Your task to perform on an android device: Go to Android settings Image 0: 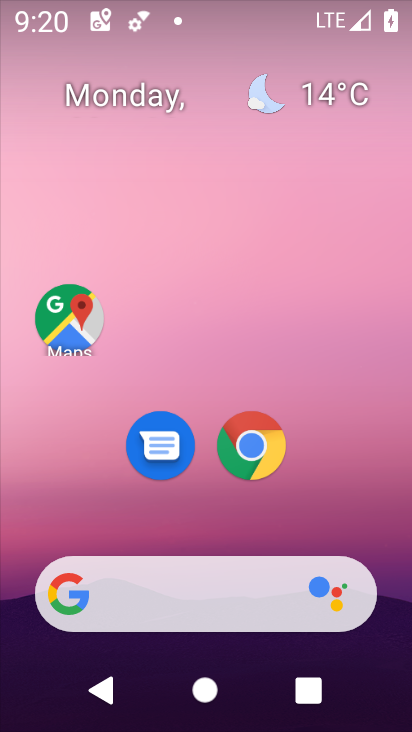
Step 0: drag from (210, 519) to (191, 2)
Your task to perform on an android device: Go to Android settings Image 1: 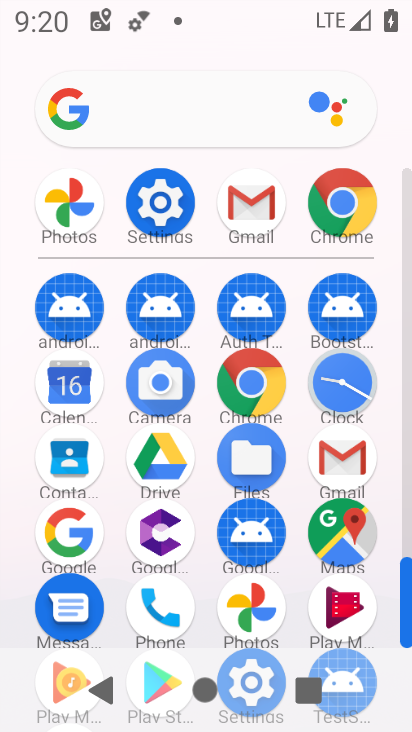
Step 1: click (158, 193)
Your task to perform on an android device: Go to Android settings Image 2: 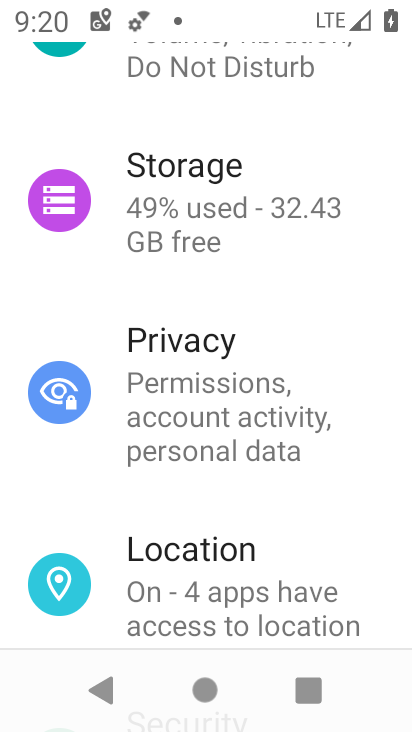
Step 2: drag from (111, 610) to (120, 113)
Your task to perform on an android device: Go to Android settings Image 3: 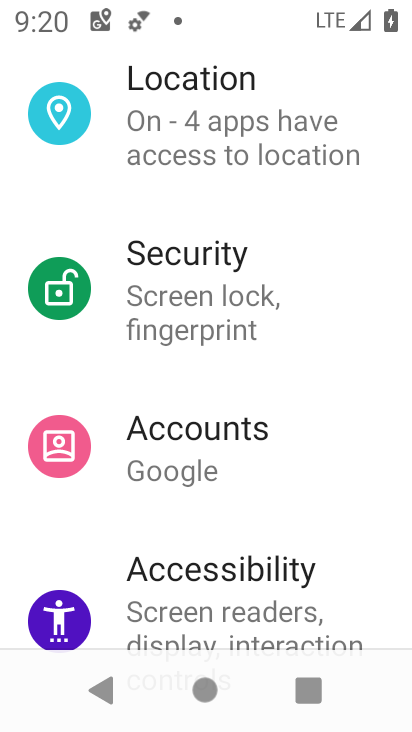
Step 3: drag from (118, 597) to (127, 87)
Your task to perform on an android device: Go to Android settings Image 4: 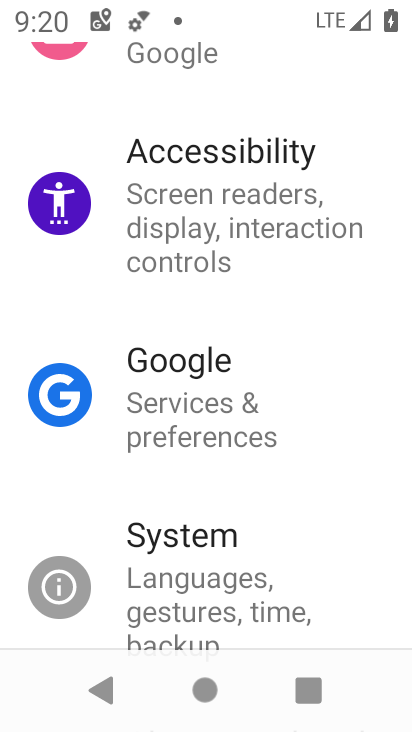
Step 4: drag from (188, 562) to (176, 47)
Your task to perform on an android device: Go to Android settings Image 5: 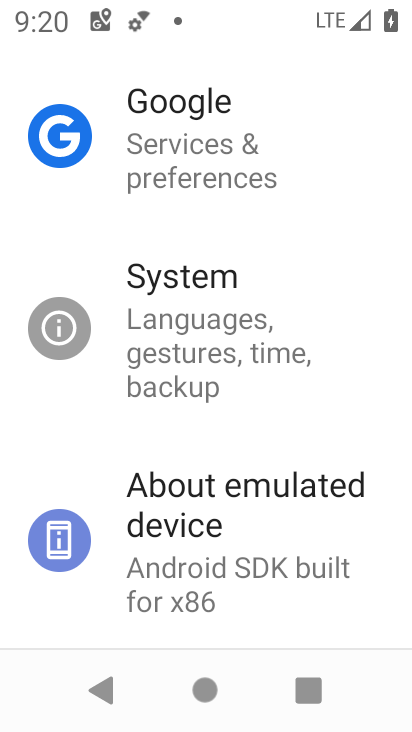
Step 5: click (220, 532)
Your task to perform on an android device: Go to Android settings Image 6: 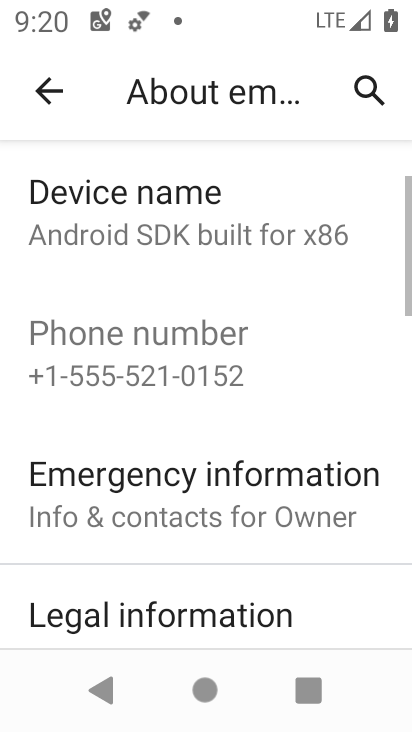
Step 6: task complete